Your task to perform on an android device: Go to ESPN.com Image 0: 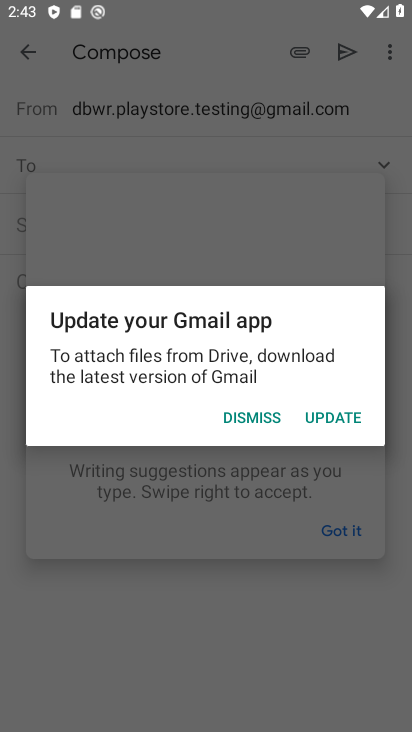
Step 0: press home button
Your task to perform on an android device: Go to ESPN.com Image 1: 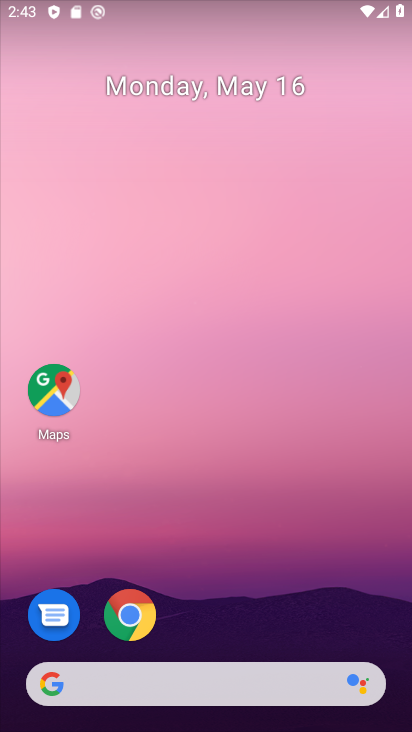
Step 1: click (133, 619)
Your task to perform on an android device: Go to ESPN.com Image 2: 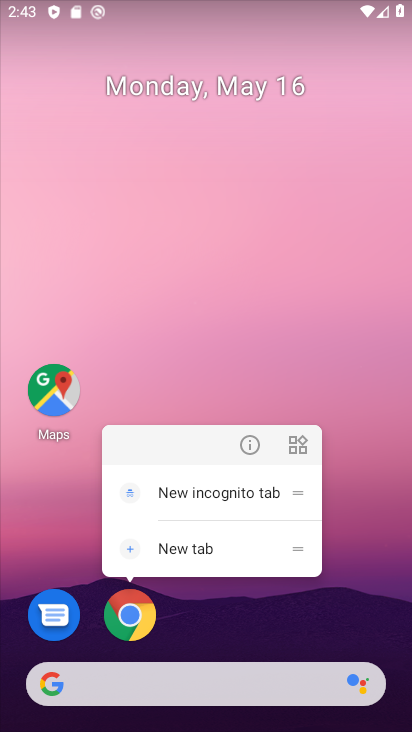
Step 2: click (133, 619)
Your task to perform on an android device: Go to ESPN.com Image 3: 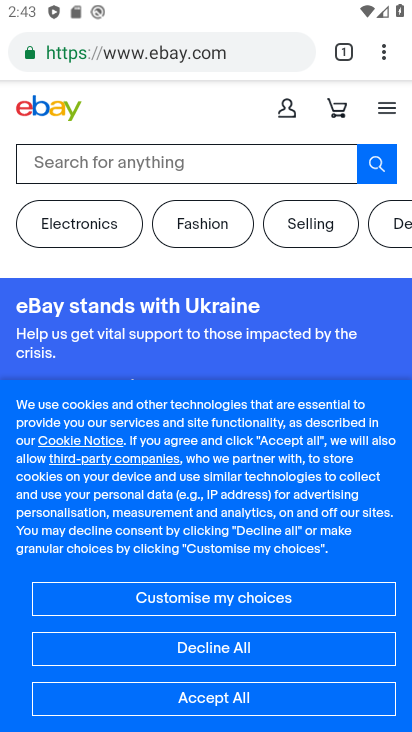
Step 3: click (142, 59)
Your task to perform on an android device: Go to ESPN.com Image 4: 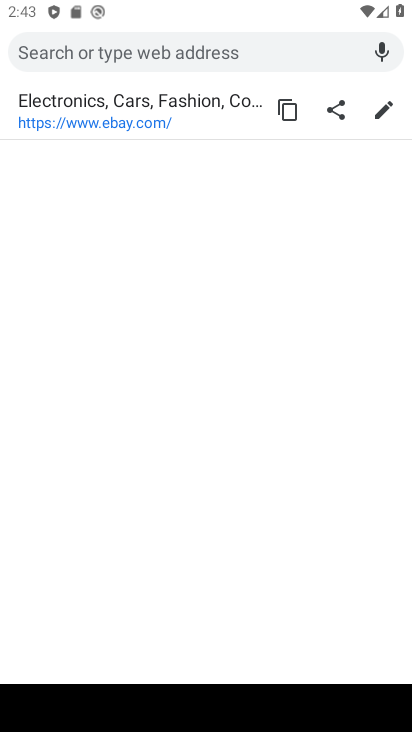
Step 4: type "espn.com"
Your task to perform on an android device: Go to ESPN.com Image 5: 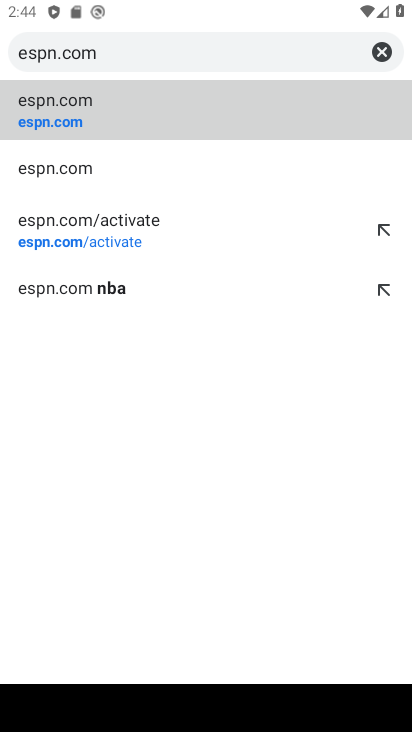
Step 5: click (44, 127)
Your task to perform on an android device: Go to ESPN.com Image 6: 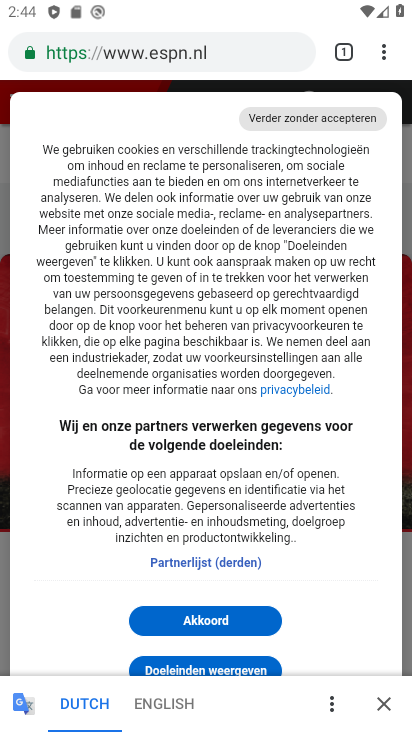
Step 6: task complete